Your task to perform on an android device: Turn off the flashlight Image 0: 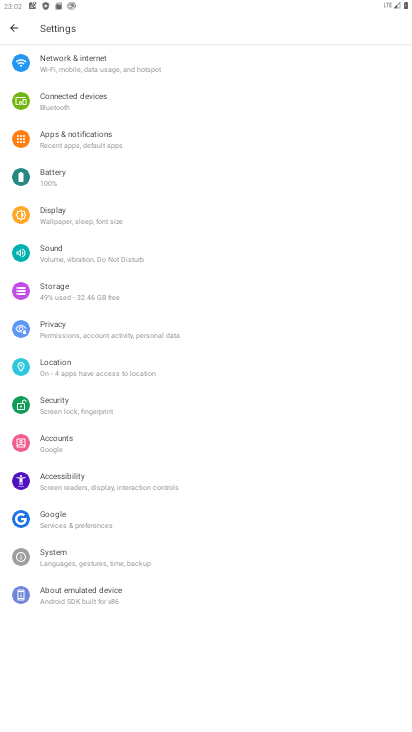
Step 0: drag from (126, 545) to (139, 129)
Your task to perform on an android device: Turn off the flashlight Image 1: 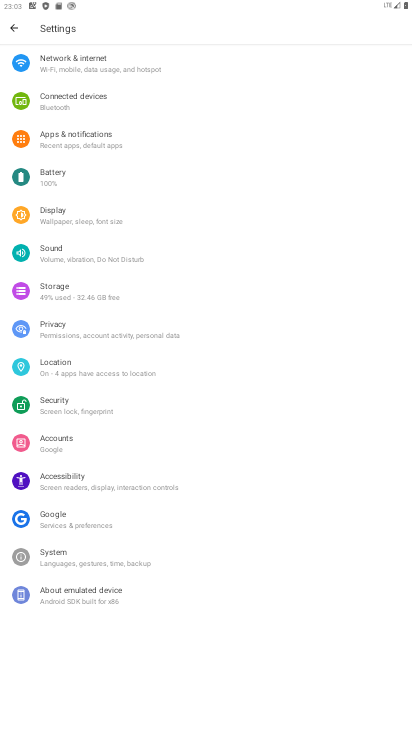
Step 1: drag from (69, 72) to (178, 567)
Your task to perform on an android device: Turn off the flashlight Image 2: 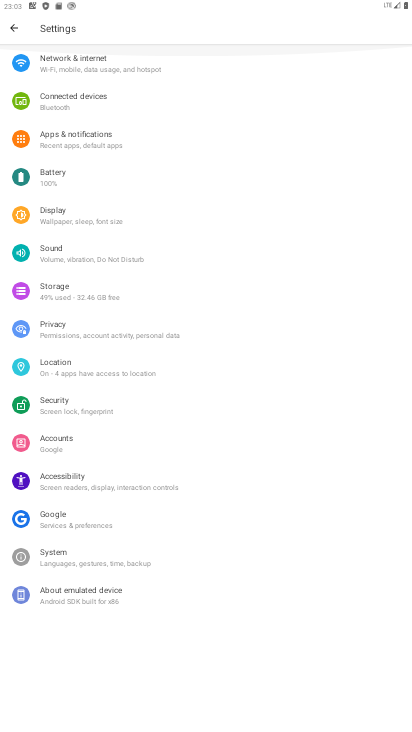
Step 2: drag from (173, 136) to (237, 490)
Your task to perform on an android device: Turn off the flashlight Image 3: 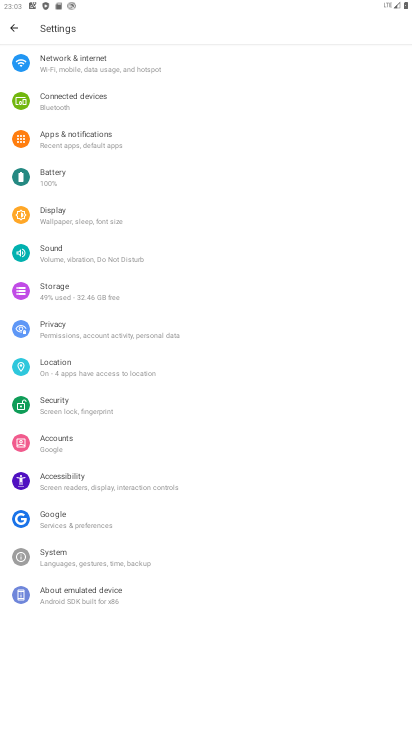
Step 3: click (14, 20)
Your task to perform on an android device: Turn off the flashlight Image 4: 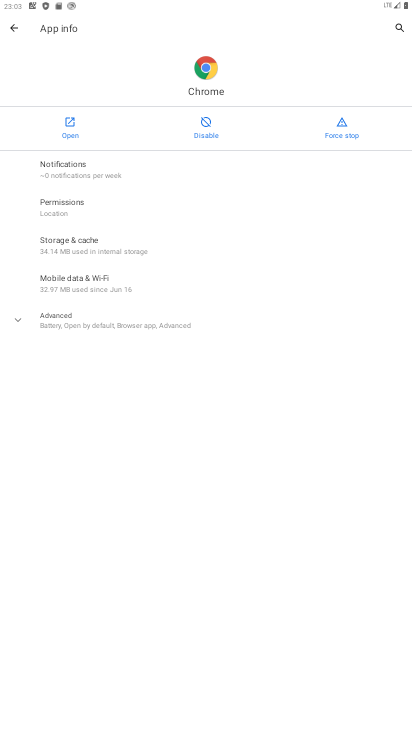
Step 4: drag from (56, 129) to (340, 630)
Your task to perform on an android device: Turn off the flashlight Image 5: 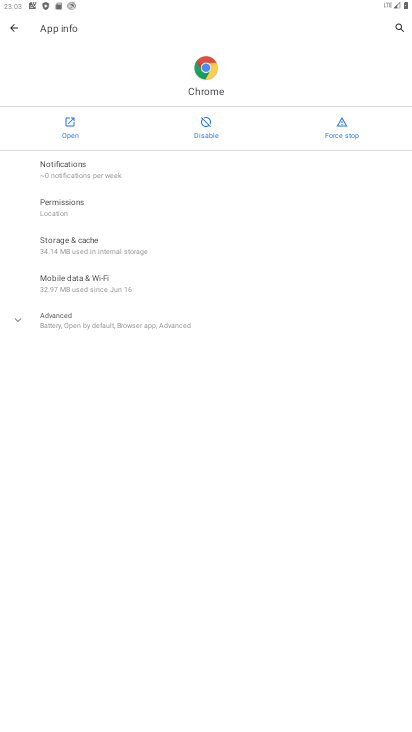
Step 5: press home button
Your task to perform on an android device: Turn off the flashlight Image 6: 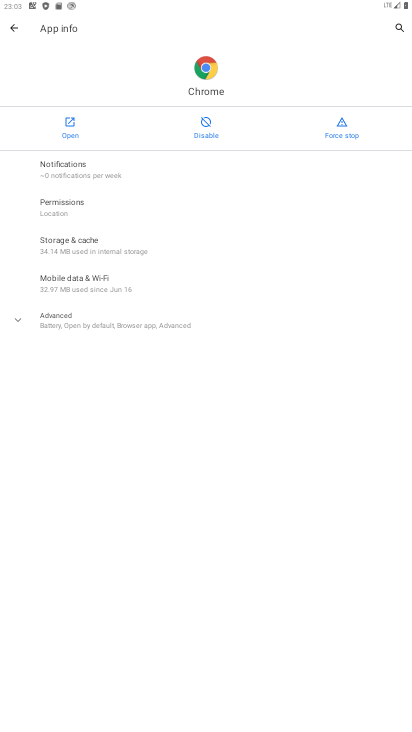
Step 6: click (364, 368)
Your task to perform on an android device: Turn off the flashlight Image 7: 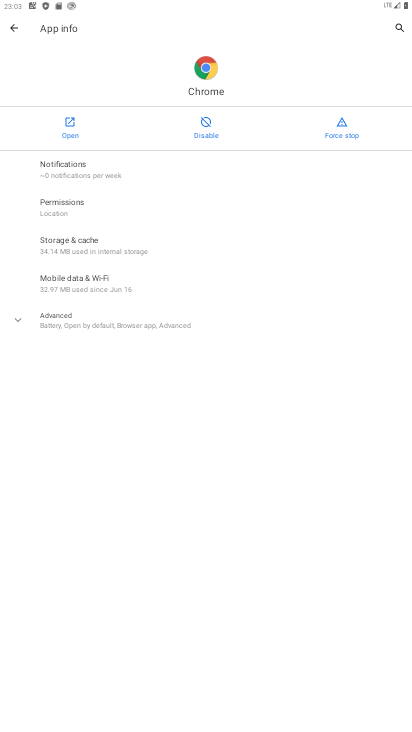
Step 7: drag from (135, 512) to (194, 7)
Your task to perform on an android device: Turn off the flashlight Image 8: 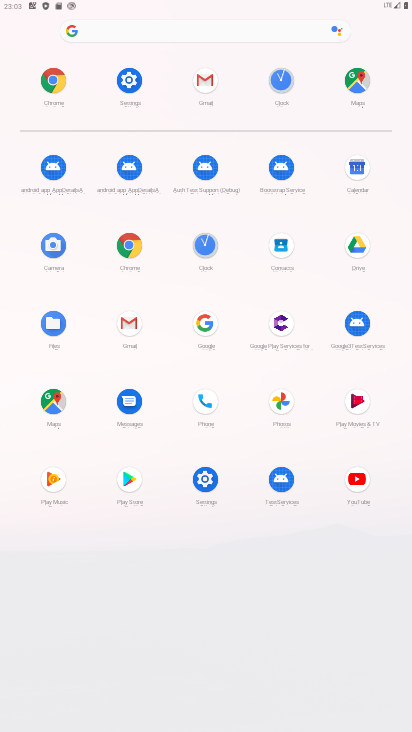
Step 8: click (131, 75)
Your task to perform on an android device: Turn off the flashlight Image 9: 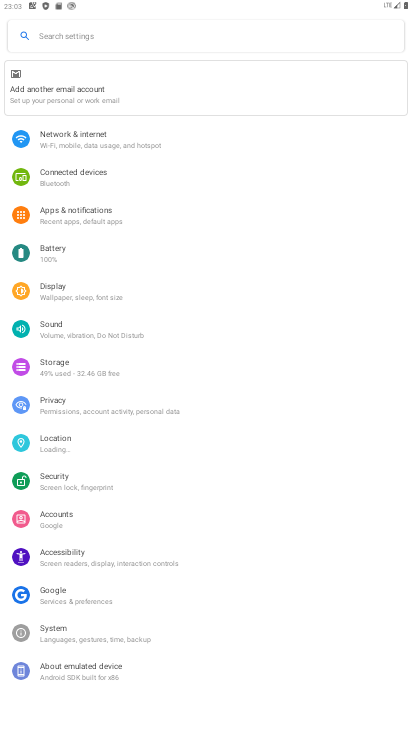
Step 9: click (124, 34)
Your task to perform on an android device: Turn off the flashlight Image 10: 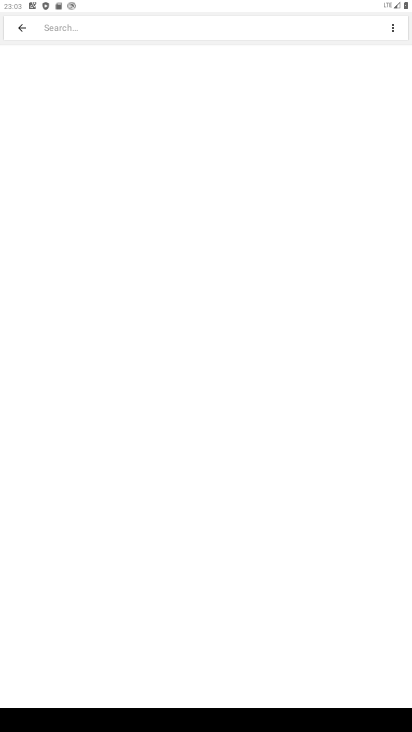
Step 10: drag from (178, 254) to (198, 14)
Your task to perform on an android device: Turn off the flashlight Image 11: 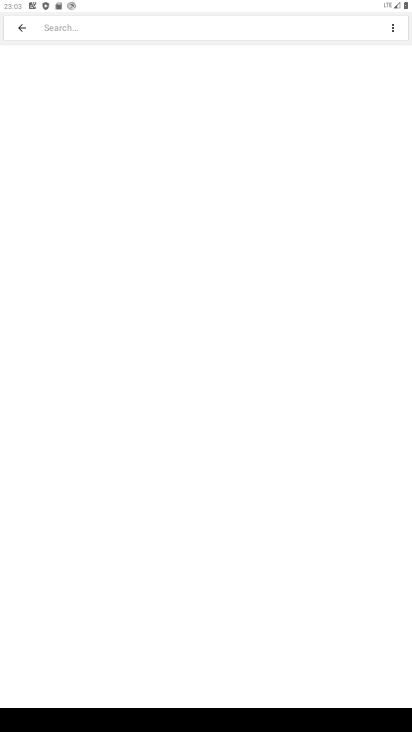
Step 11: type "flashlight"
Your task to perform on an android device: Turn off the flashlight Image 12: 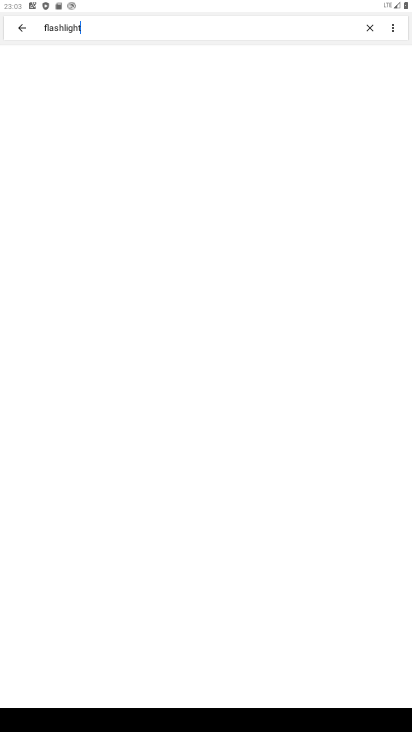
Step 12: type ""
Your task to perform on an android device: Turn off the flashlight Image 13: 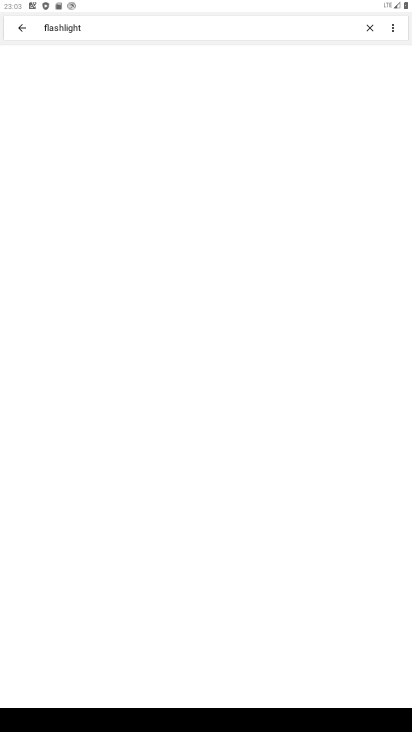
Step 13: click (149, 82)
Your task to perform on an android device: Turn off the flashlight Image 14: 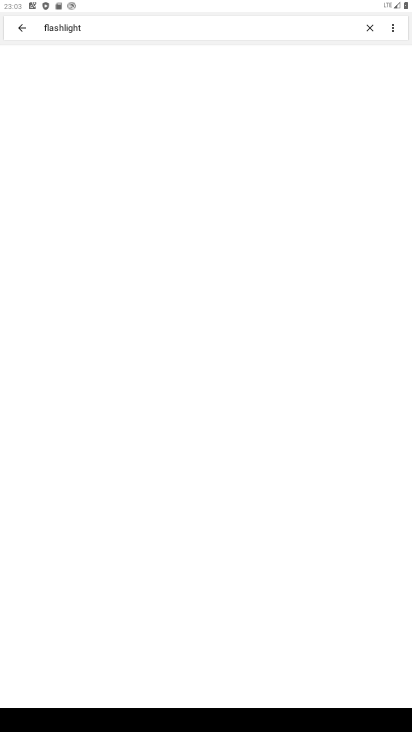
Step 14: click (149, 82)
Your task to perform on an android device: Turn off the flashlight Image 15: 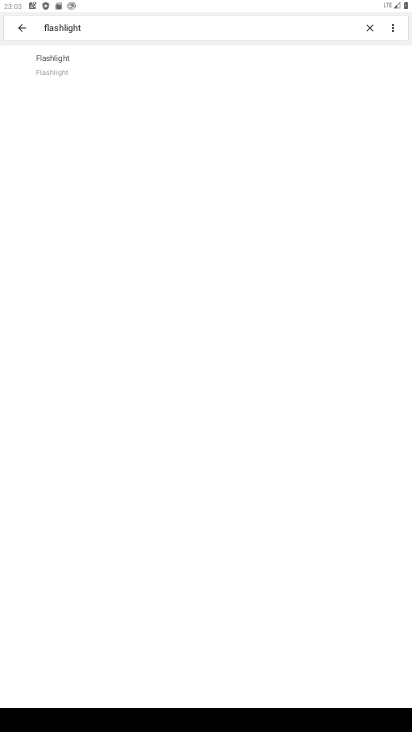
Step 15: click (150, 81)
Your task to perform on an android device: Turn off the flashlight Image 16: 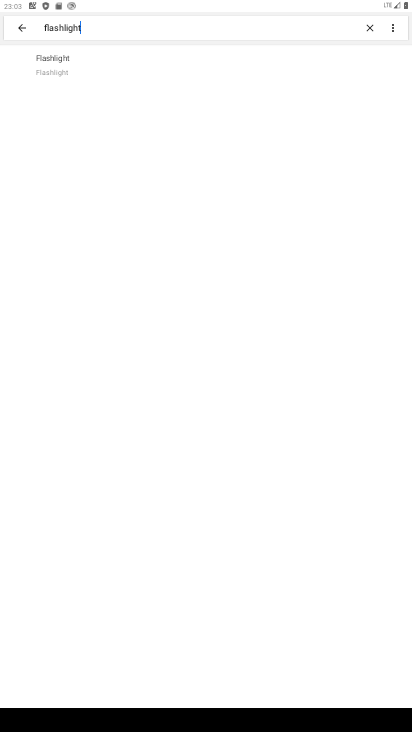
Step 16: click (143, 78)
Your task to perform on an android device: Turn off the flashlight Image 17: 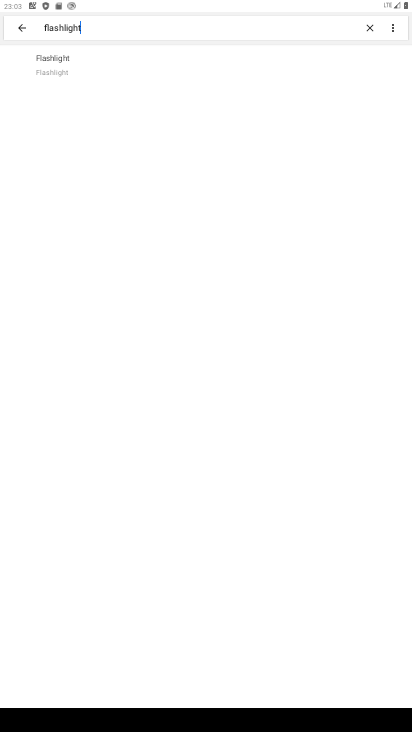
Step 17: task complete